Your task to perform on an android device: Open the web browser Image 0: 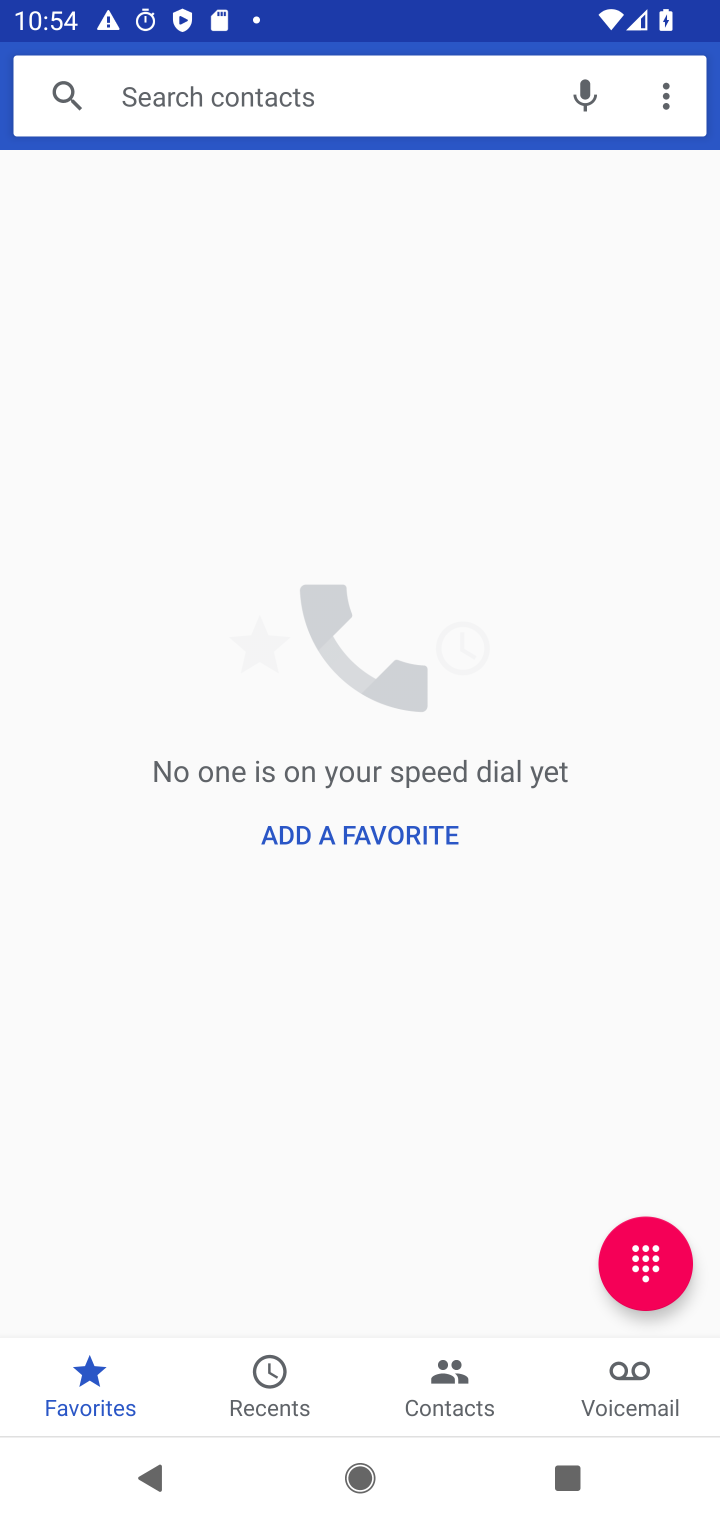
Step 0: press back button
Your task to perform on an android device: Open the web browser Image 1: 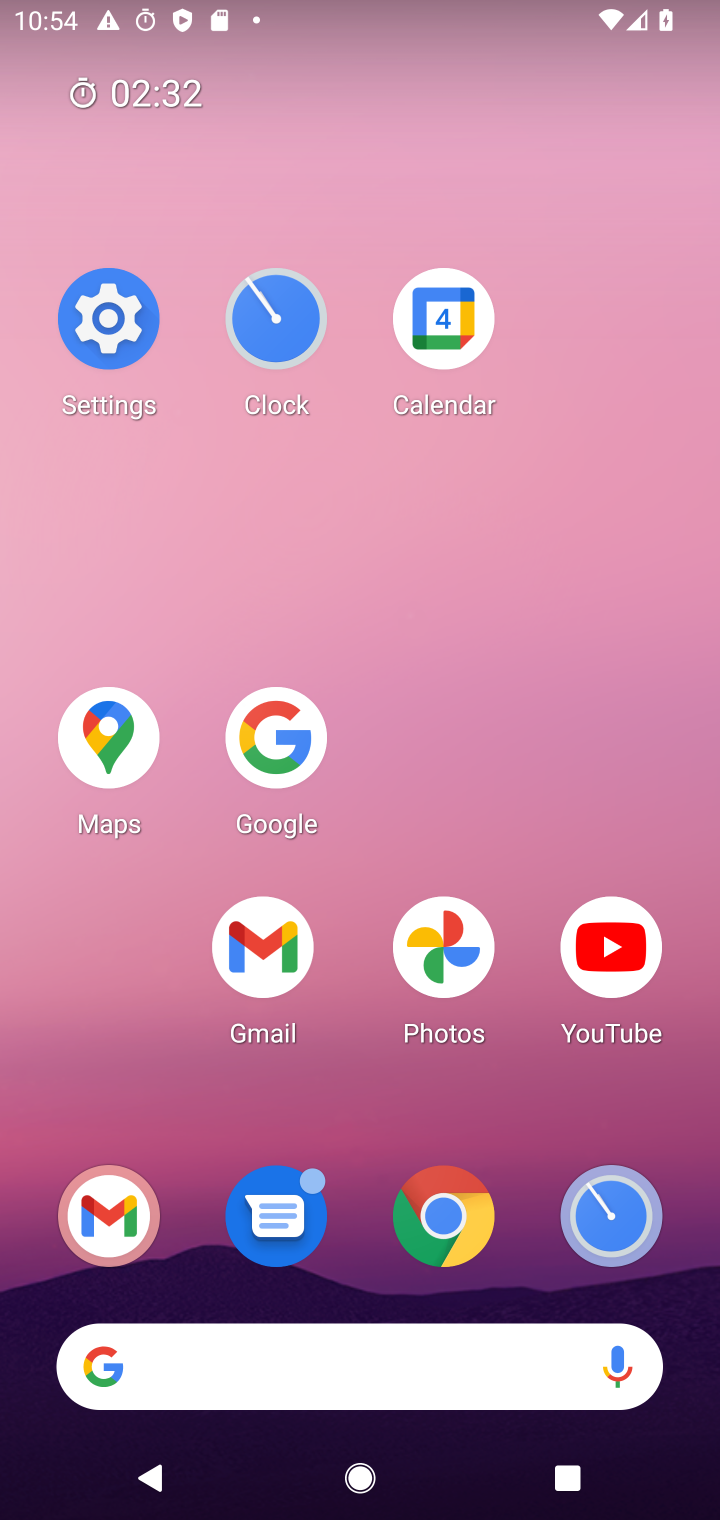
Step 1: click (447, 1188)
Your task to perform on an android device: Open the web browser Image 2: 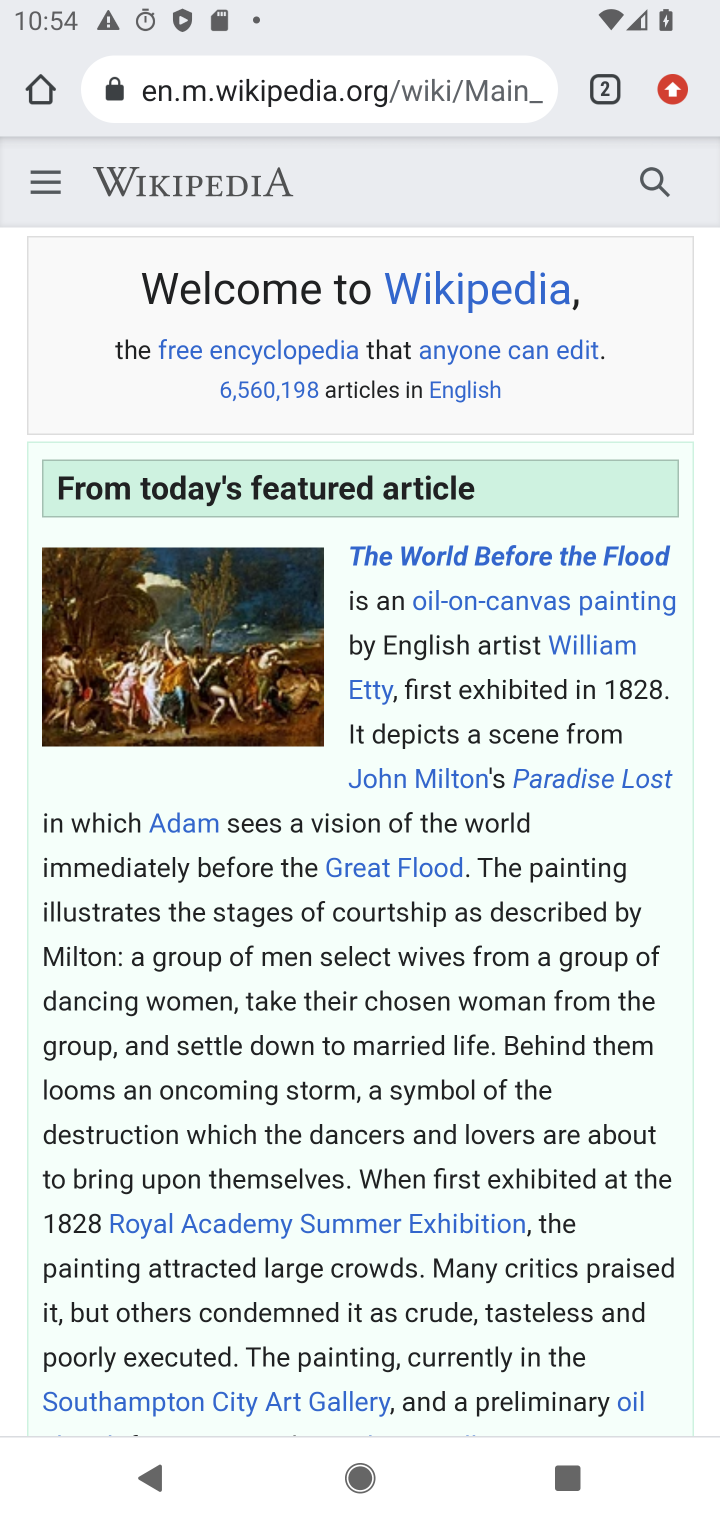
Step 2: task complete